Your task to perform on an android device: toggle airplane mode Image 0: 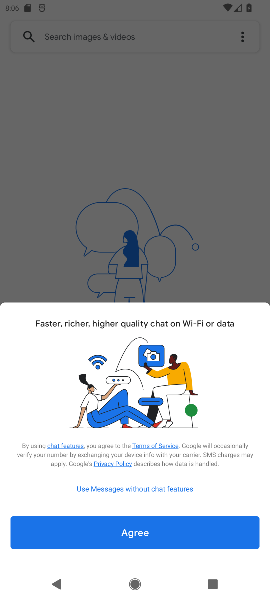
Step 0: press home button
Your task to perform on an android device: toggle airplane mode Image 1: 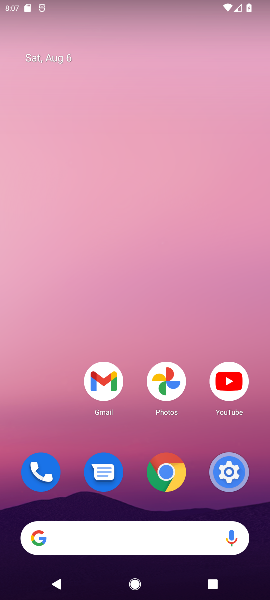
Step 1: click (232, 465)
Your task to perform on an android device: toggle airplane mode Image 2: 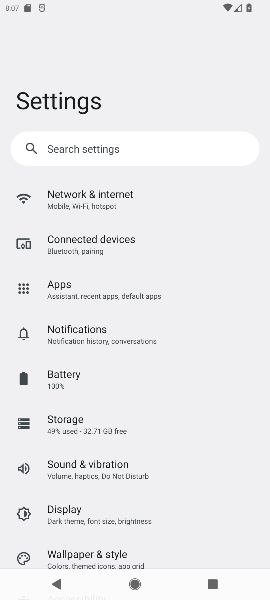
Step 2: click (110, 195)
Your task to perform on an android device: toggle airplane mode Image 3: 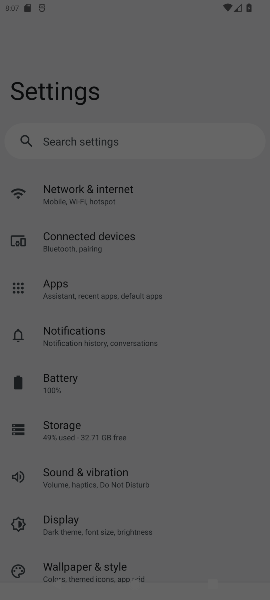
Step 3: click (91, 198)
Your task to perform on an android device: toggle airplane mode Image 4: 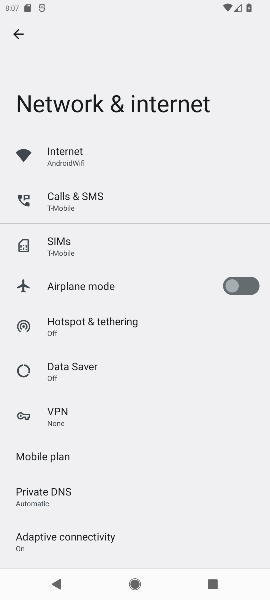
Step 4: click (247, 286)
Your task to perform on an android device: toggle airplane mode Image 5: 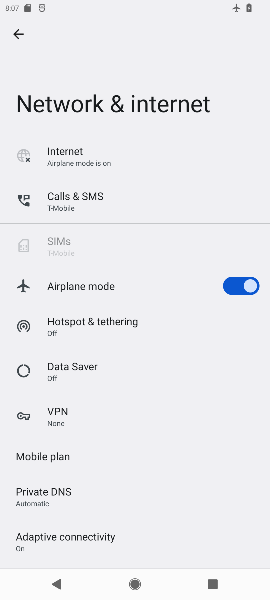
Step 5: task complete